Your task to perform on an android device: Add duracell triple a to the cart on newegg.com Image 0: 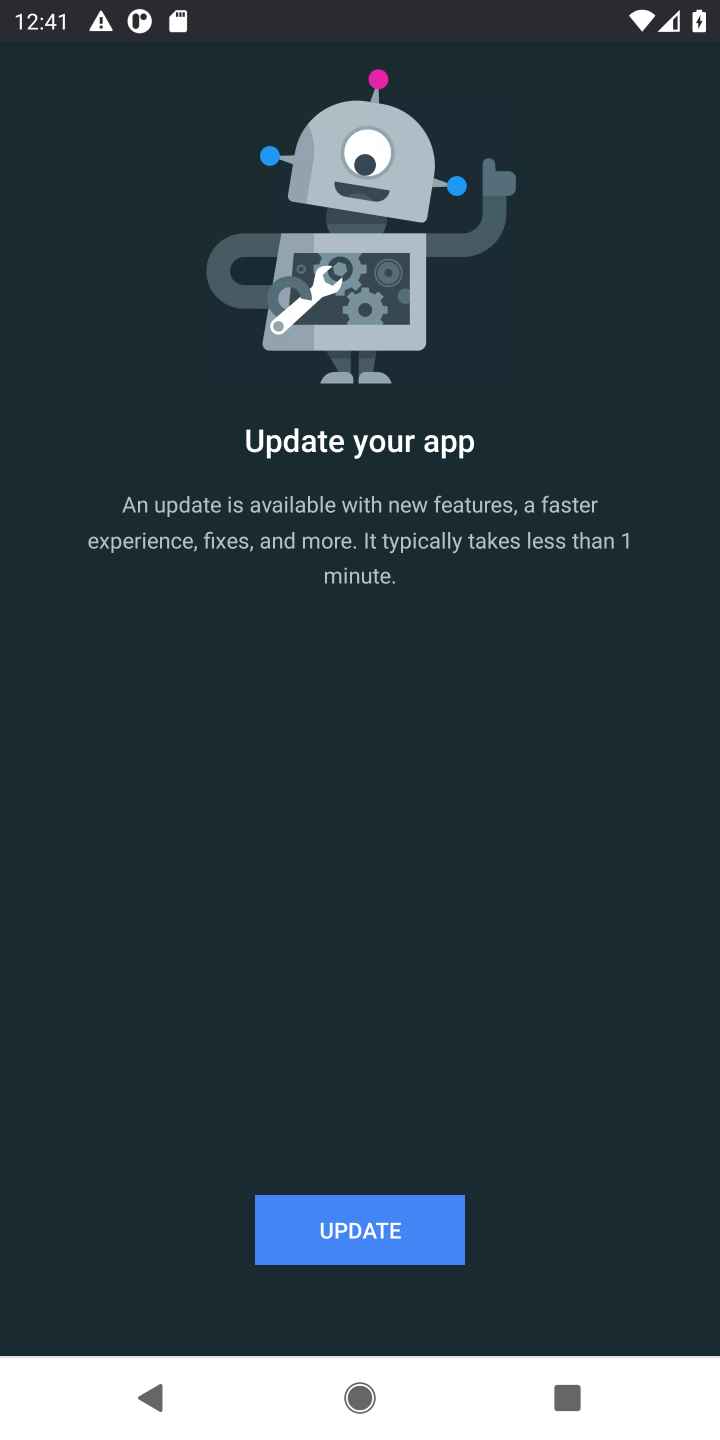
Step 0: press home button
Your task to perform on an android device: Add duracell triple a to the cart on newegg.com Image 1: 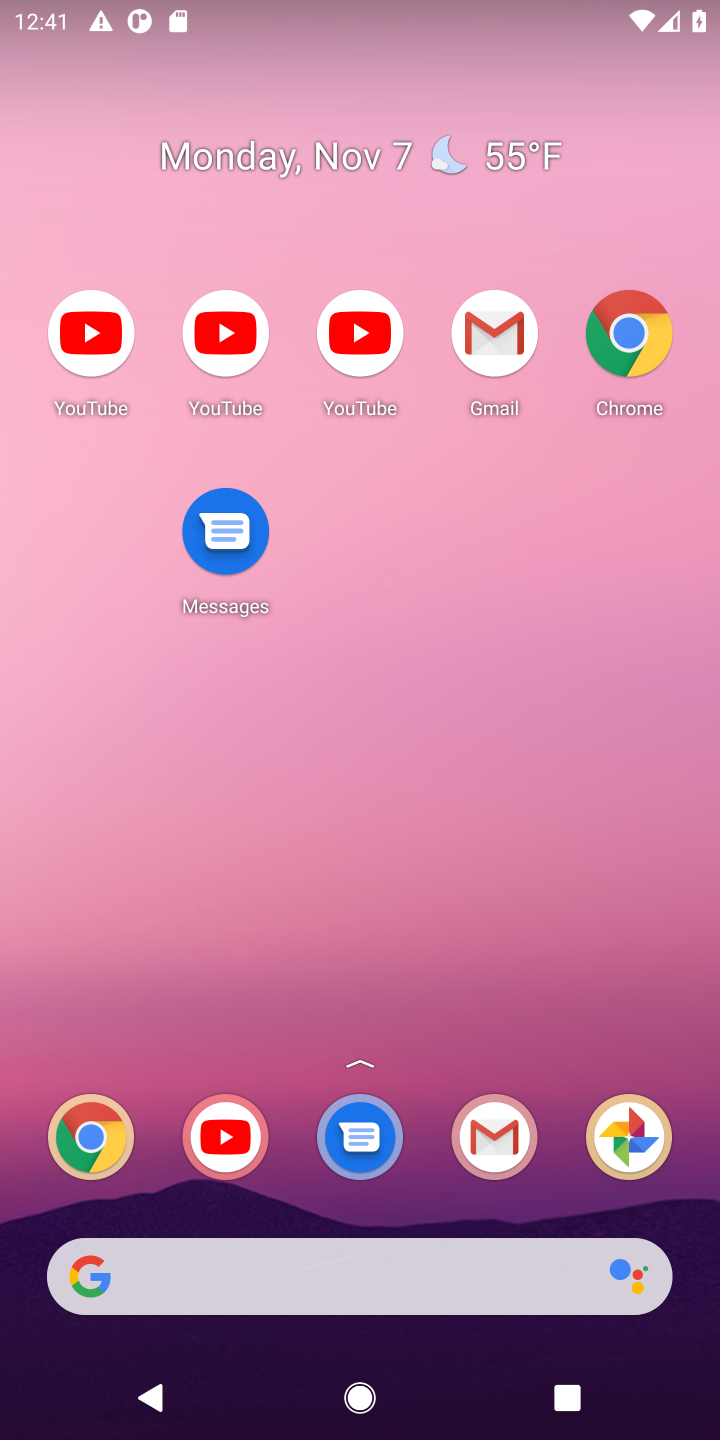
Step 1: drag from (413, 1141) to (422, 278)
Your task to perform on an android device: Add duracell triple a to the cart on newegg.com Image 2: 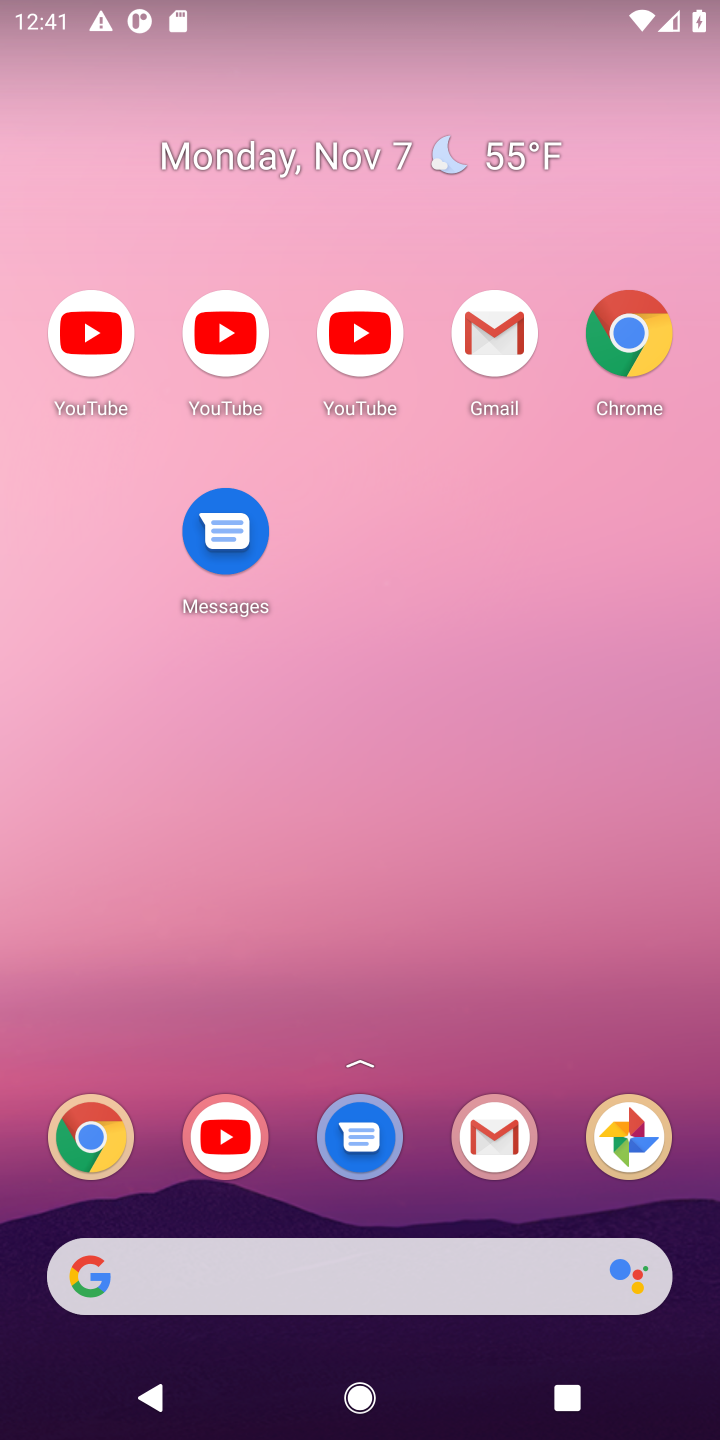
Step 2: drag from (423, 1197) to (346, 363)
Your task to perform on an android device: Add duracell triple a to the cart on newegg.com Image 3: 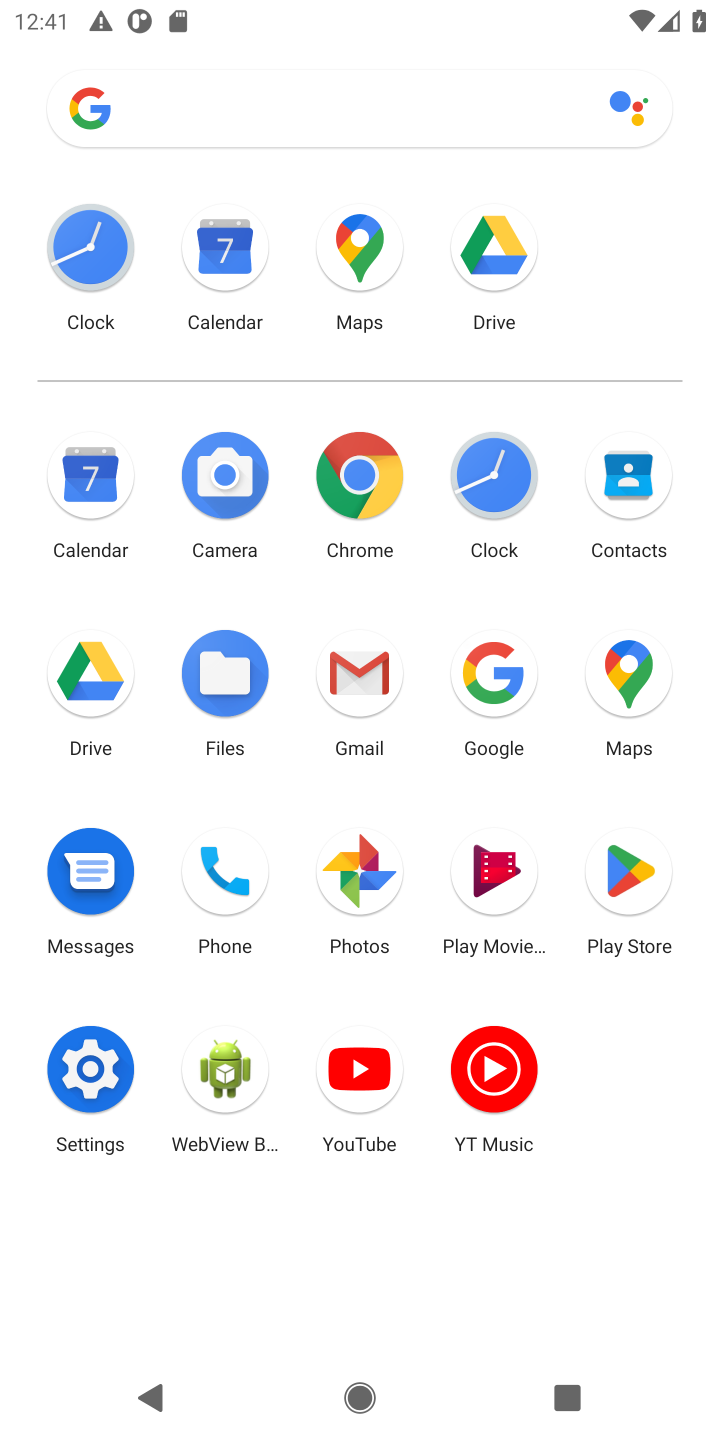
Step 3: click (349, 468)
Your task to perform on an android device: Add duracell triple a to the cart on newegg.com Image 4: 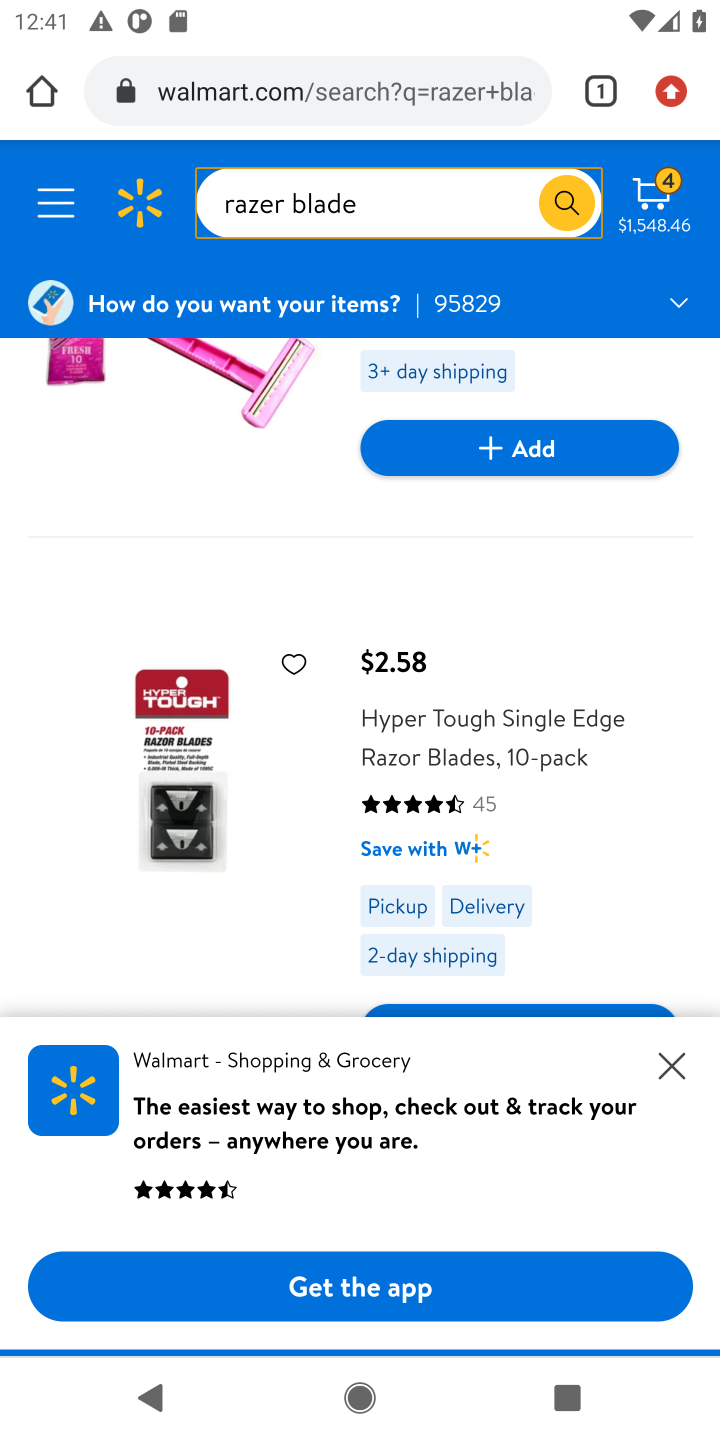
Step 4: click (275, 84)
Your task to perform on an android device: Add duracell triple a to the cart on newegg.com Image 5: 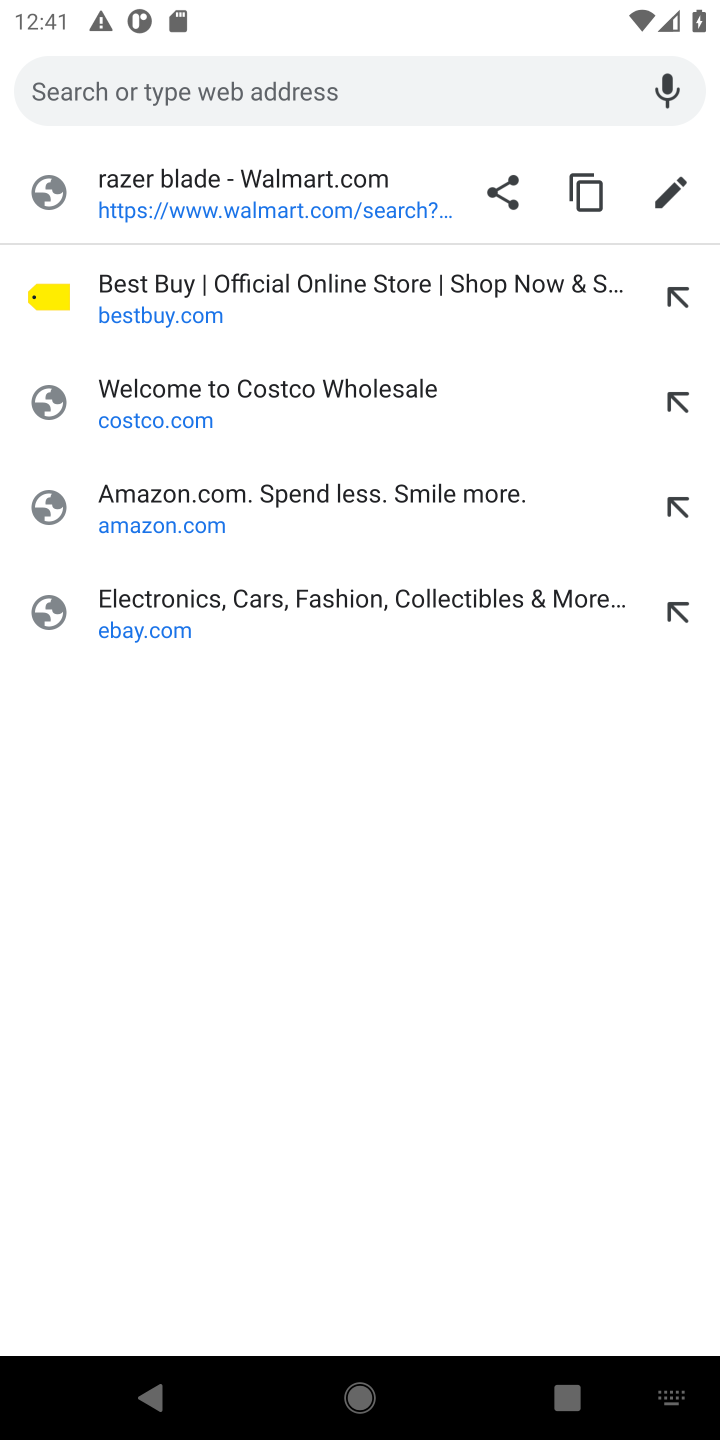
Step 5: type "newegg.com"
Your task to perform on an android device: Add duracell triple a to the cart on newegg.com Image 6: 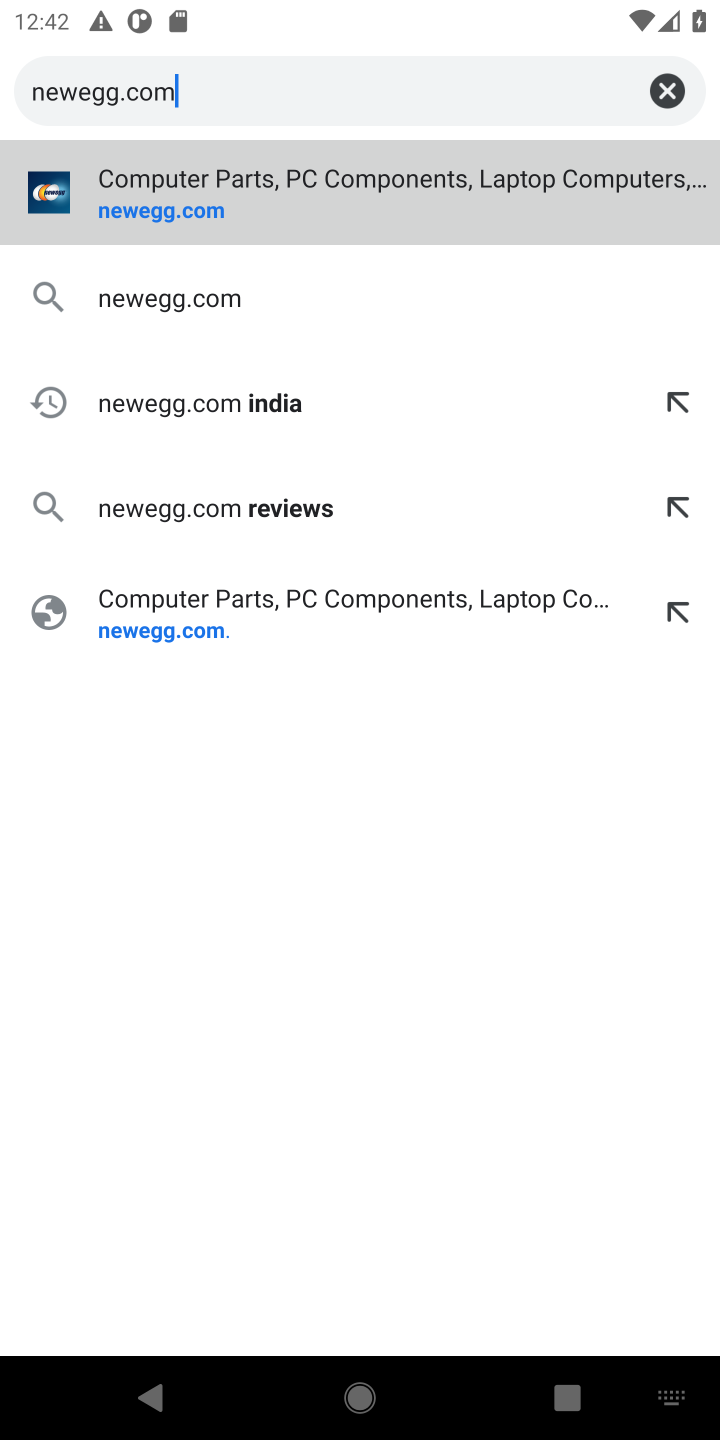
Step 6: click (168, 228)
Your task to perform on an android device: Add duracell triple a to the cart on newegg.com Image 7: 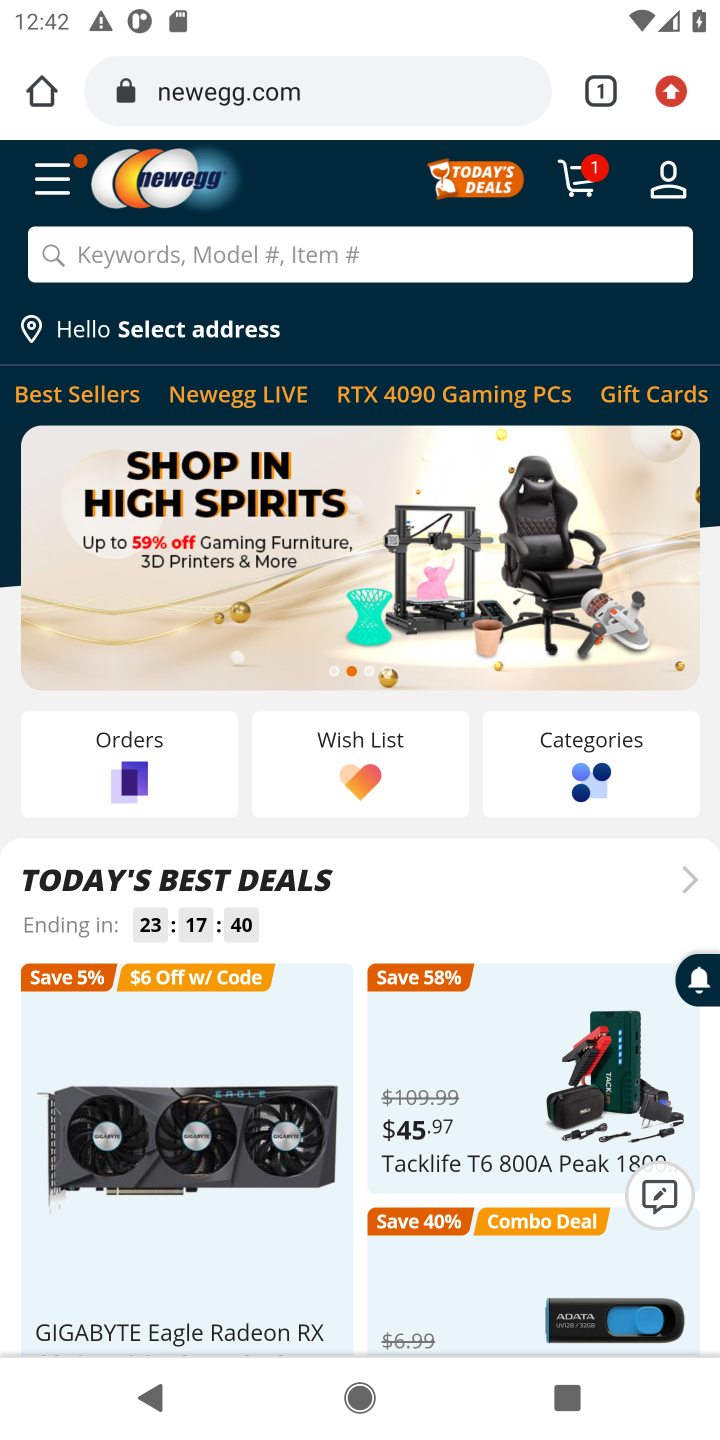
Step 7: click (447, 252)
Your task to perform on an android device: Add duracell triple a to the cart on newegg.com Image 8: 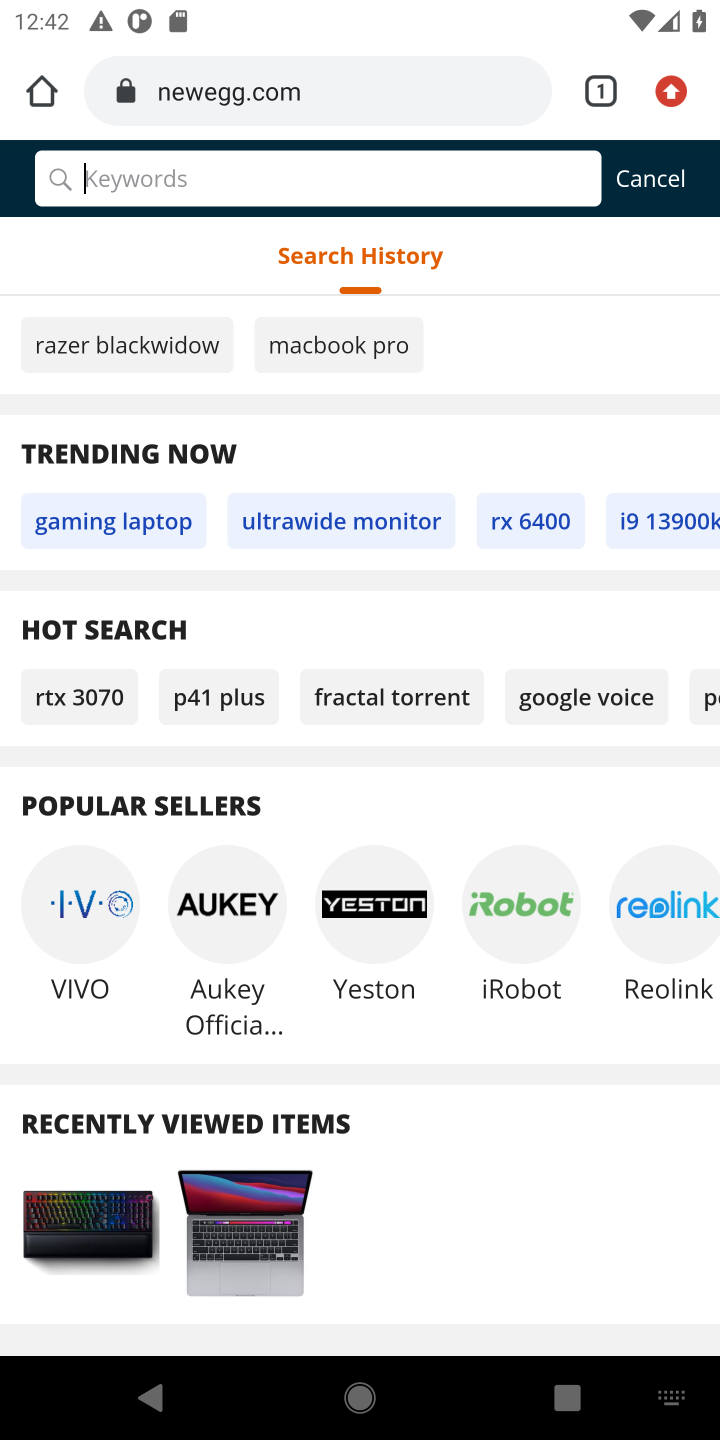
Step 8: click (222, 155)
Your task to perform on an android device: Add duracell triple a to the cart on newegg.com Image 9: 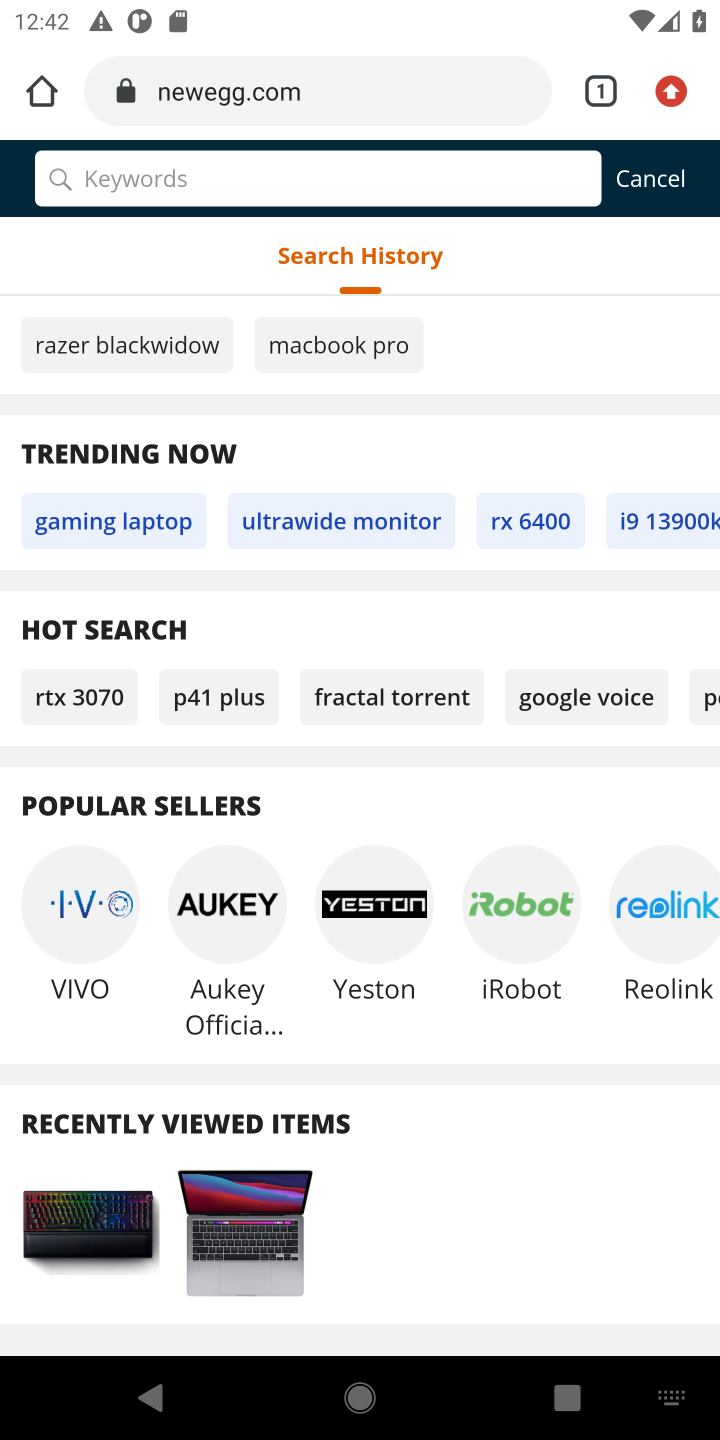
Step 9: type ""
Your task to perform on an android device: Add duracell triple a to the cart on newegg.com Image 10: 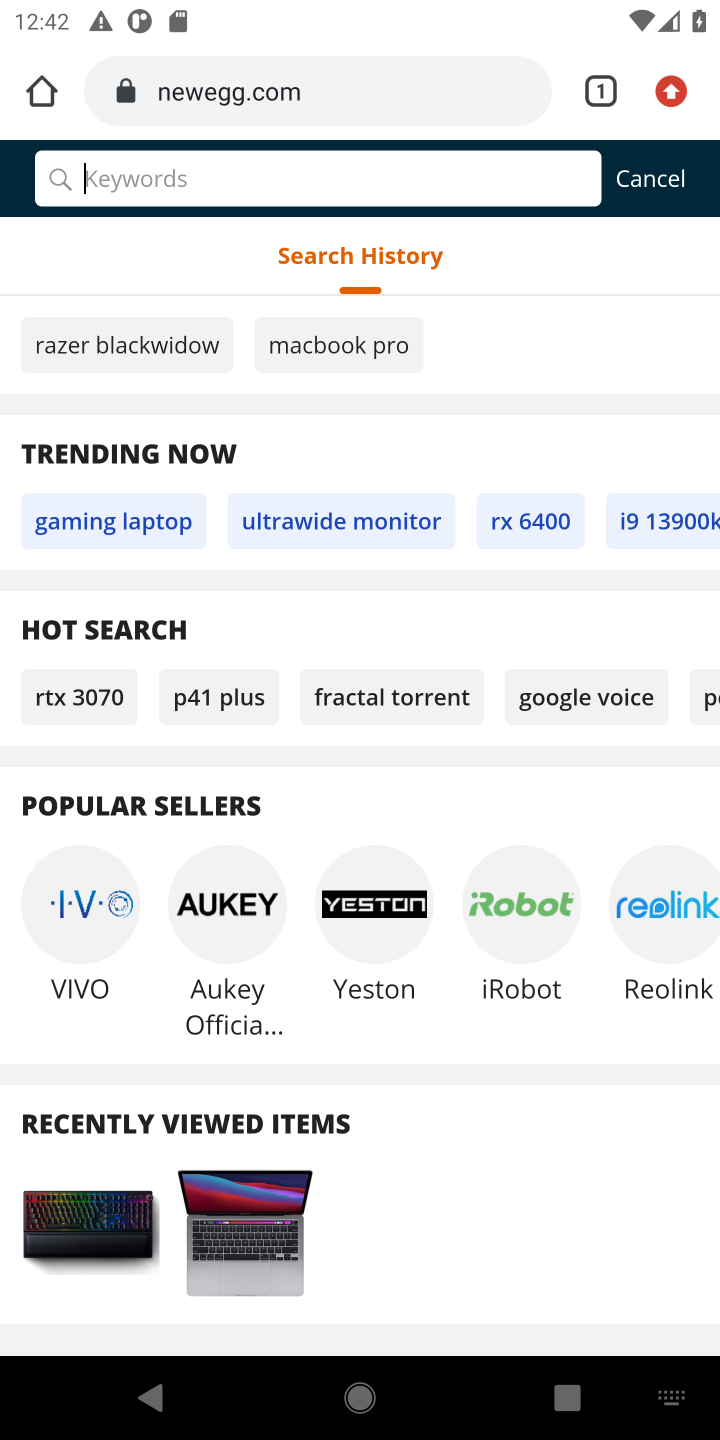
Step 10: type "duracell triple a"
Your task to perform on an android device: Add duracell triple a to the cart on newegg.com Image 11: 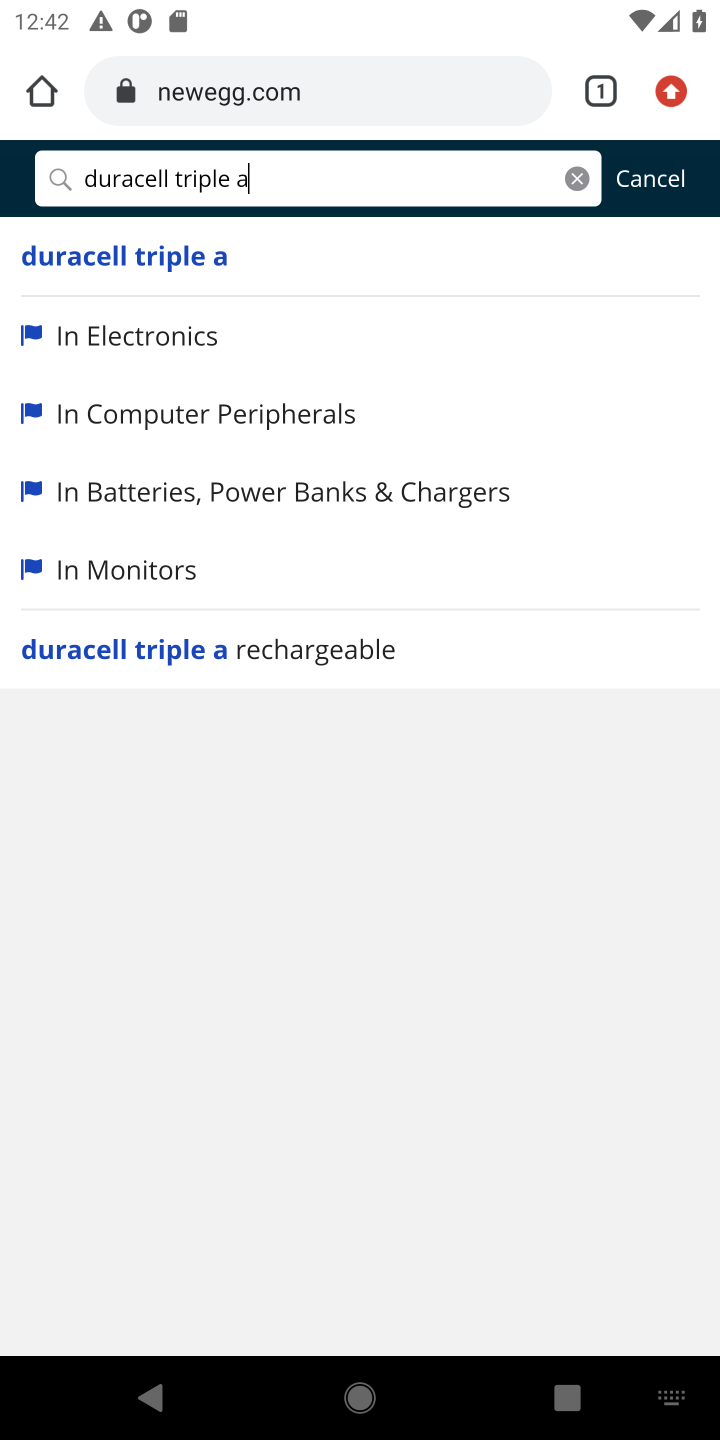
Step 11: press enter
Your task to perform on an android device: Add duracell triple a to the cart on newegg.com Image 12: 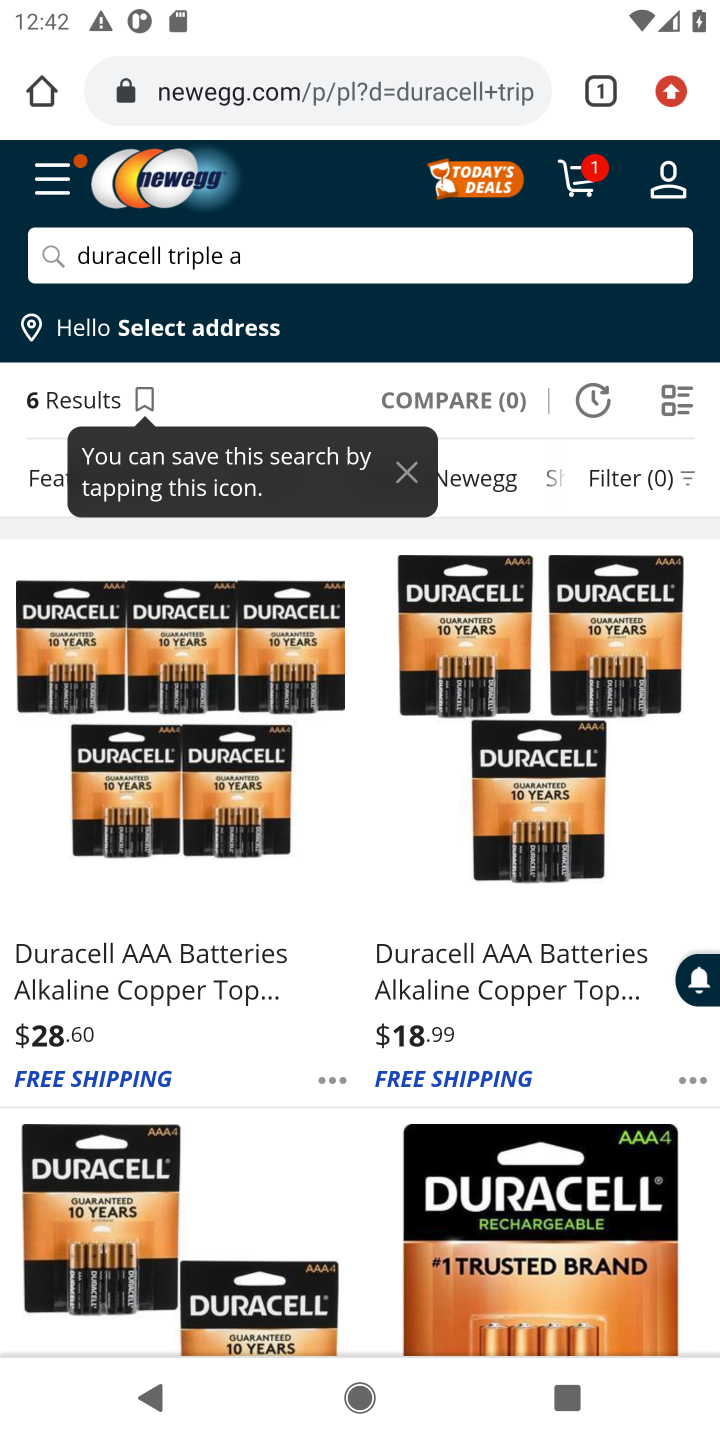
Step 12: click (170, 969)
Your task to perform on an android device: Add duracell triple a to the cart on newegg.com Image 13: 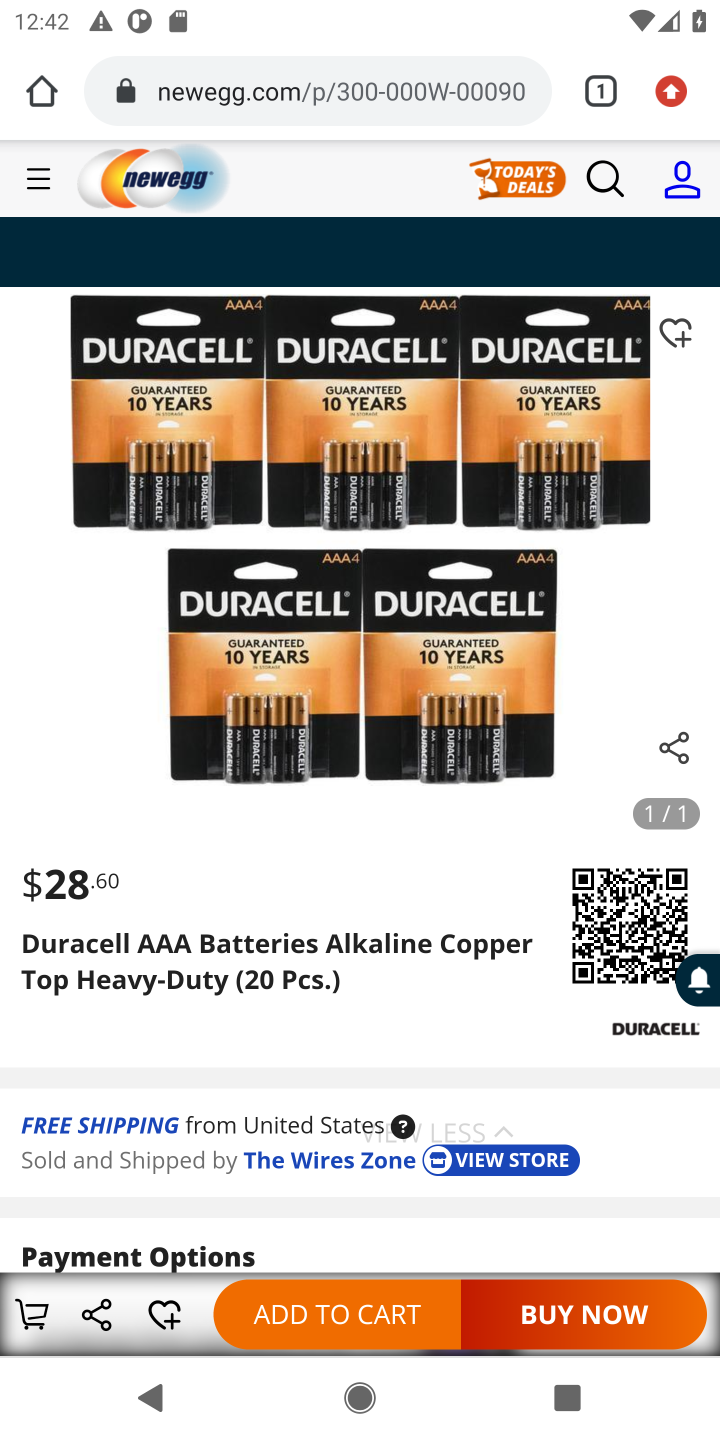
Step 13: click (367, 1317)
Your task to perform on an android device: Add duracell triple a to the cart on newegg.com Image 14: 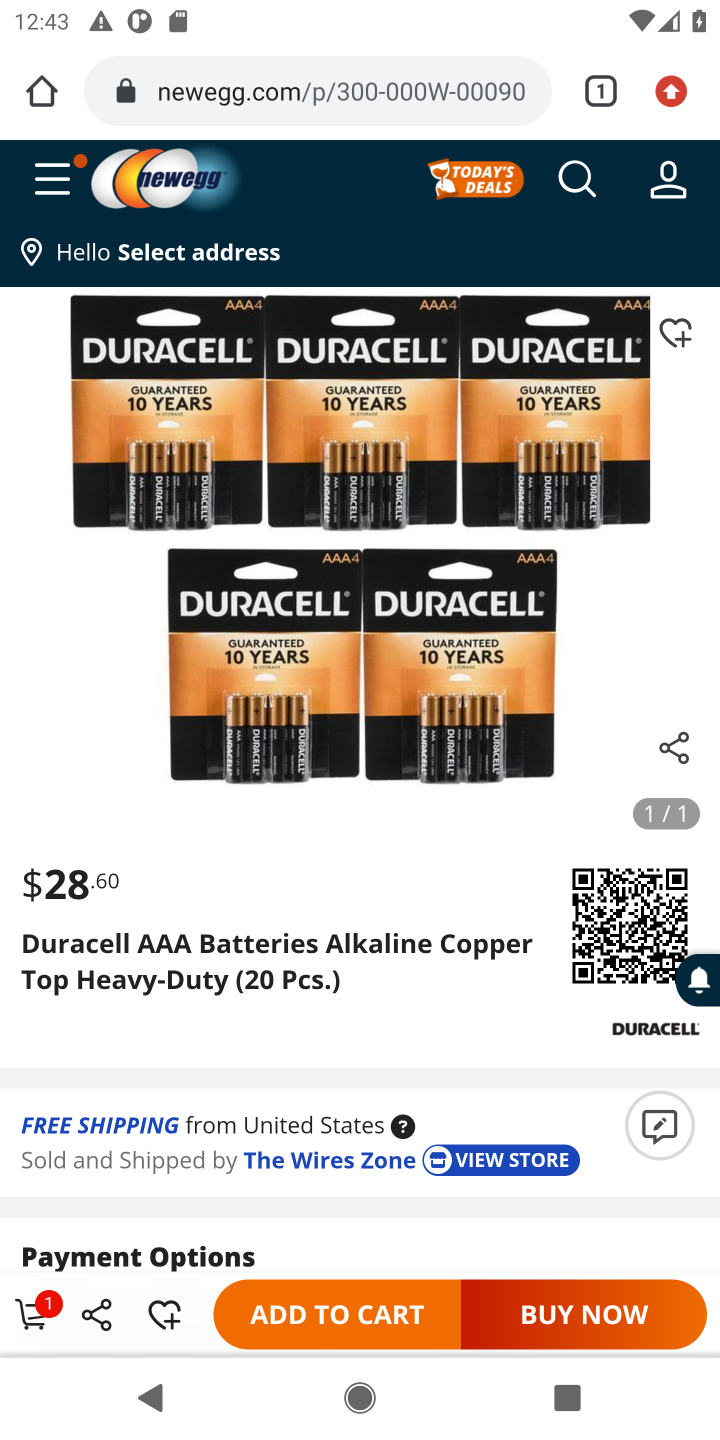
Step 14: click (353, 1296)
Your task to perform on an android device: Add duracell triple a to the cart on newegg.com Image 15: 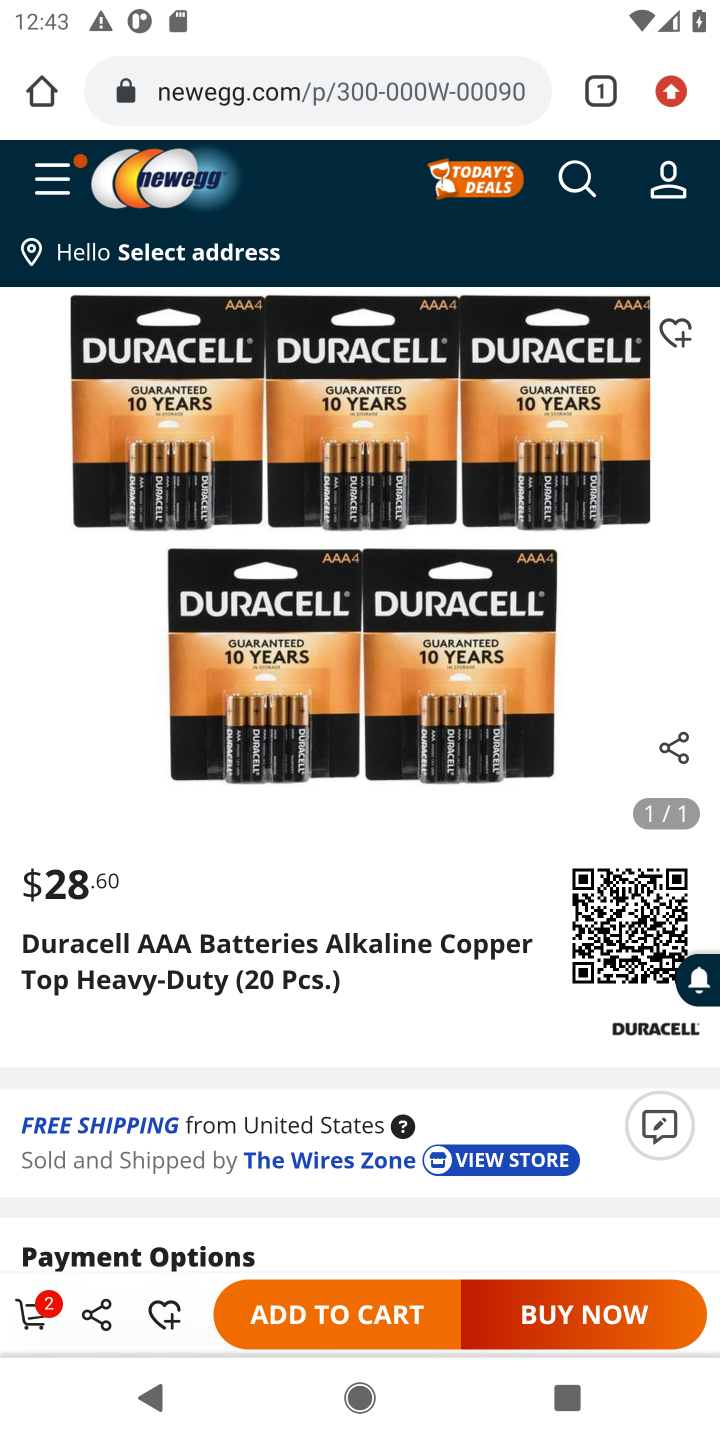
Step 15: task complete